Your task to perform on an android device: Open Yahoo.com Image 0: 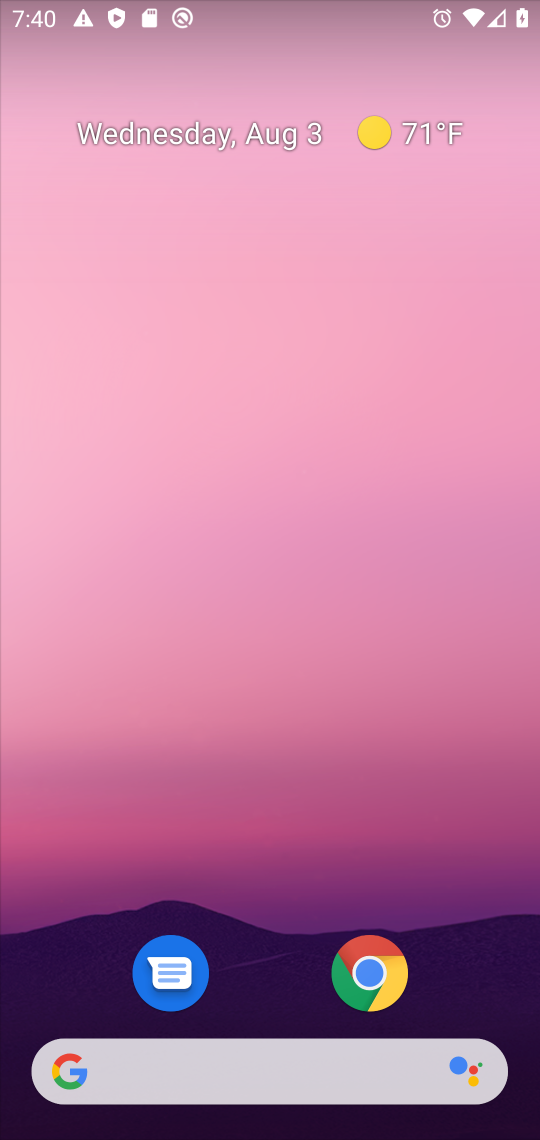
Step 0: click (370, 970)
Your task to perform on an android device: Open Yahoo.com Image 1: 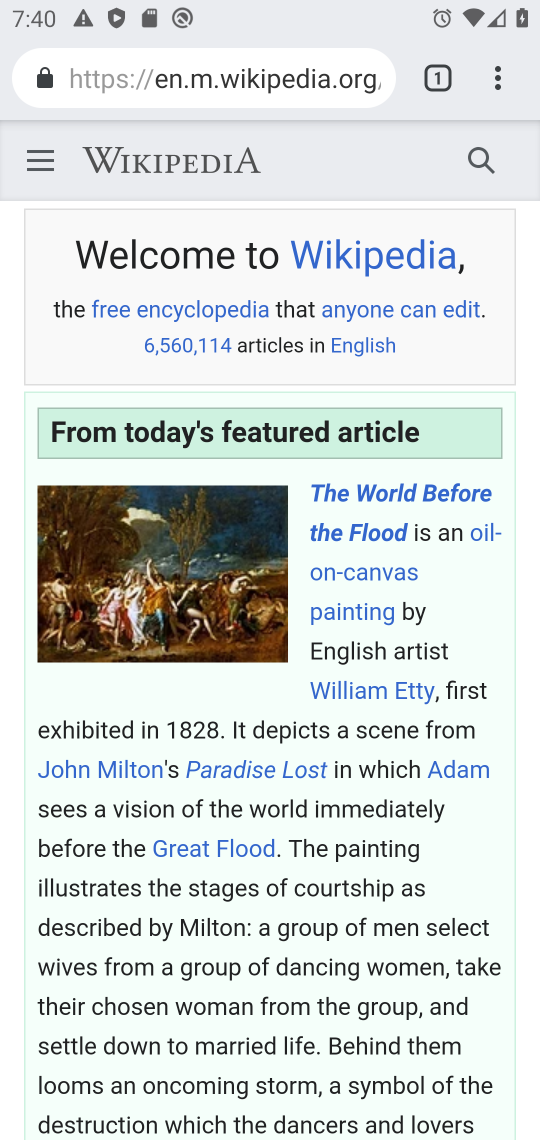
Step 1: press back button
Your task to perform on an android device: Open Yahoo.com Image 2: 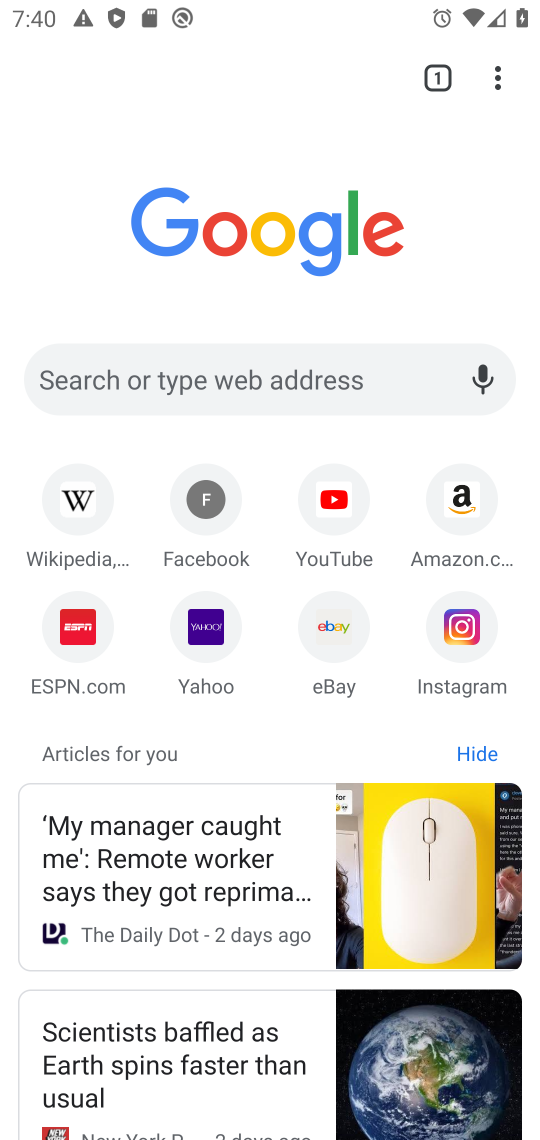
Step 2: click (189, 656)
Your task to perform on an android device: Open Yahoo.com Image 3: 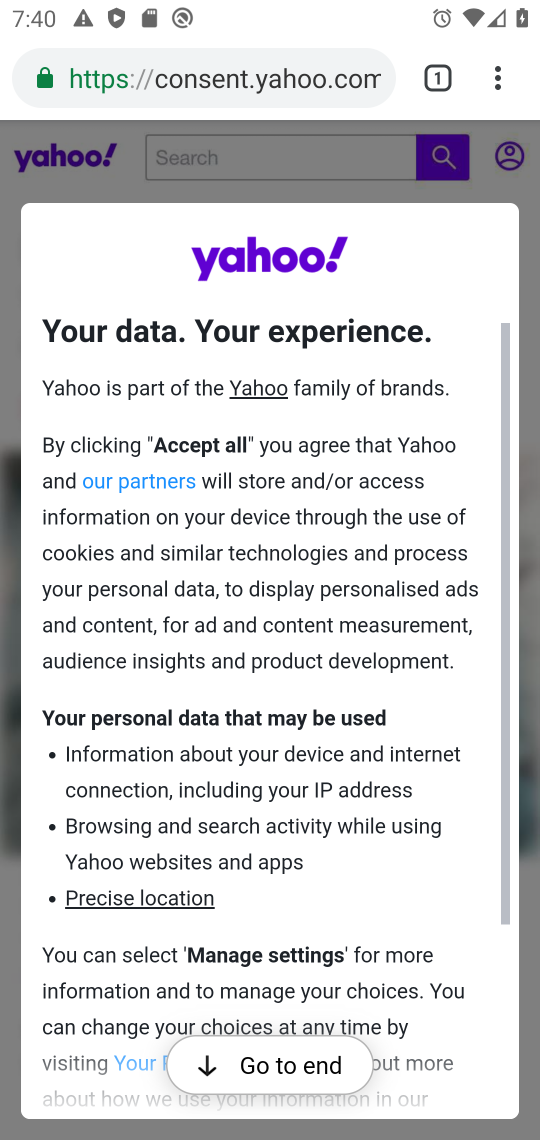
Step 3: task complete